Your task to perform on an android device: toggle airplane mode Image 0: 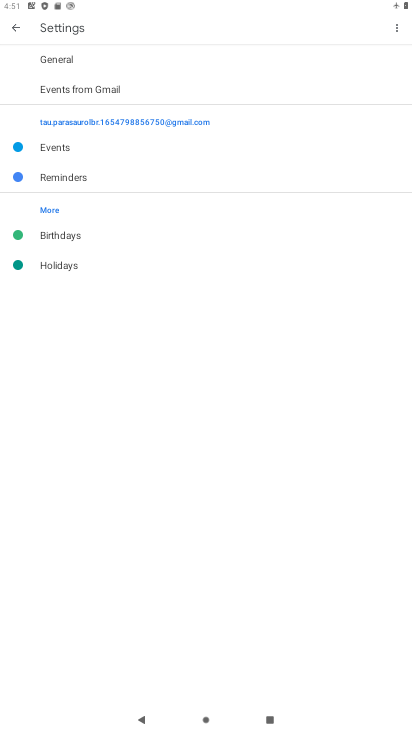
Step 0: press home button
Your task to perform on an android device: toggle airplane mode Image 1: 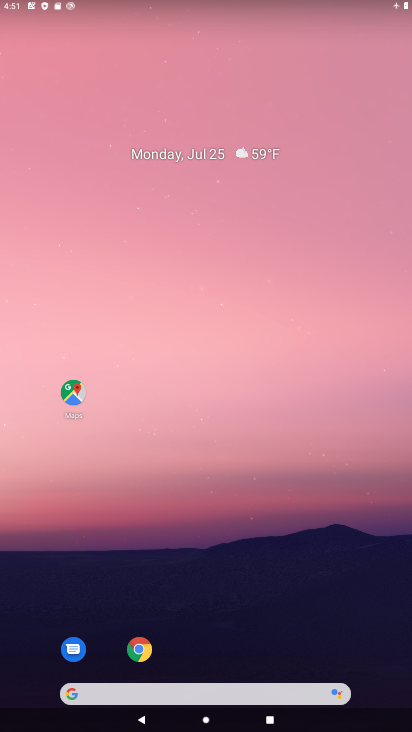
Step 1: drag from (296, 547) to (347, 0)
Your task to perform on an android device: toggle airplane mode Image 2: 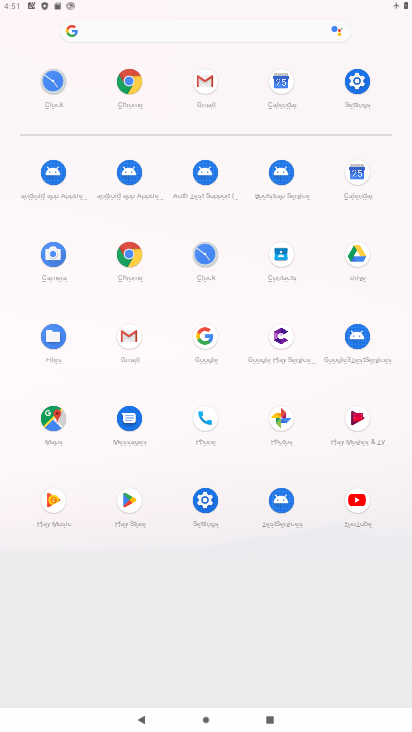
Step 2: click (358, 81)
Your task to perform on an android device: toggle airplane mode Image 3: 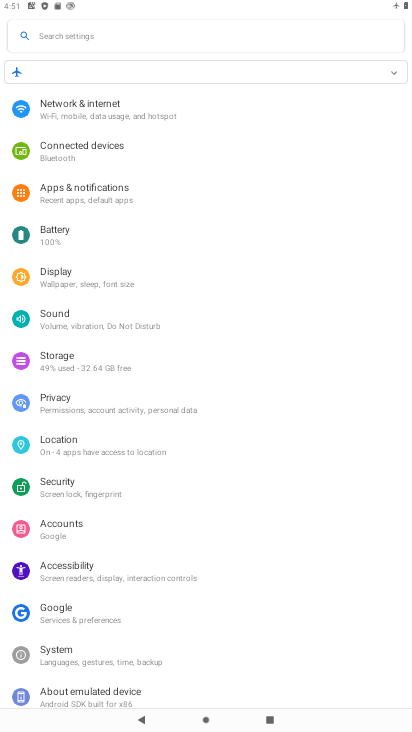
Step 3: click (125, 97)
Your task to perform on an android device: toggle airplane mode Image 4: 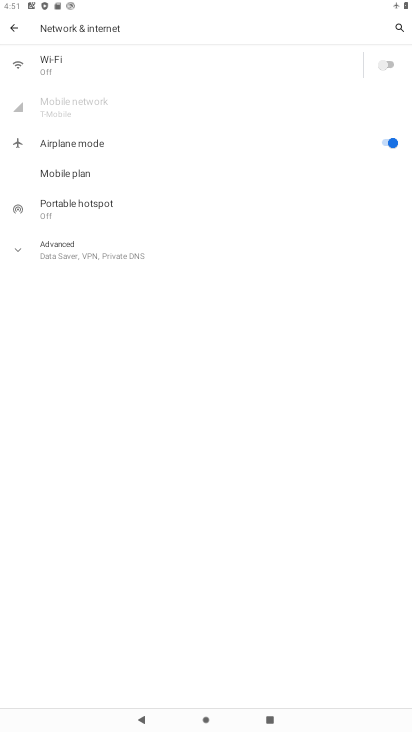
Step 4: click (109, 144)
Your task to perform on an android device: toggle airplane mode Image 5: 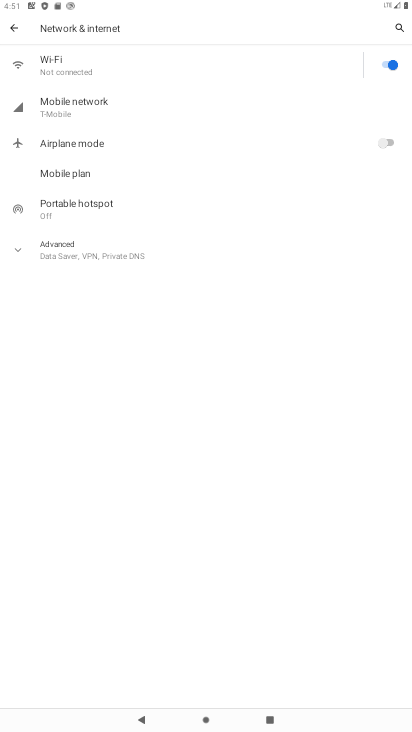
Step 5: task complete